Your task to perform on an android device: turn on showing notifications on the lock screen Image 0: 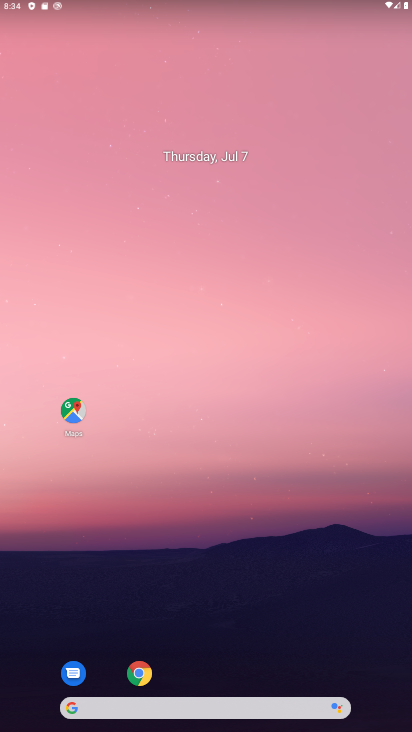
Step 0: drag from (278, 657) to (262, 198)
Your task to perform on an android device: turn on showing notifications on the lock screen Image 1: 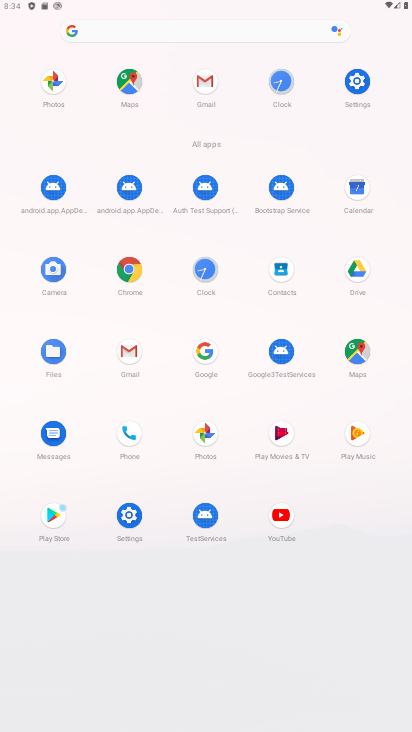
Step 1: click (359, 82)
Your task to perform on an android device: turn on showing notifications on the lock screen Image 2: 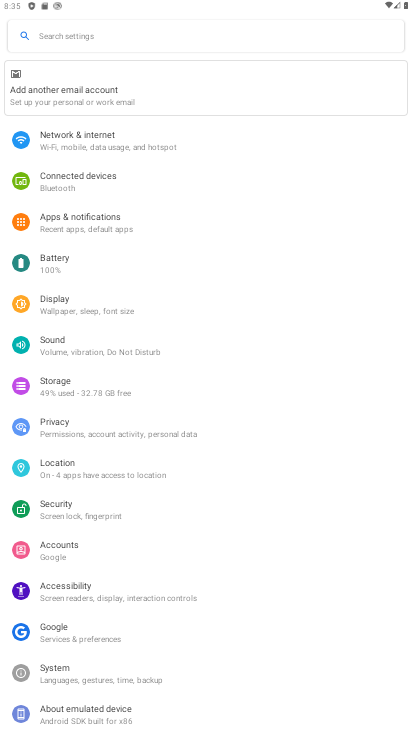
Step 2: click (96, 218)
Your task to perform on an android device: turn on showing notifications on the lock screen Image 3: 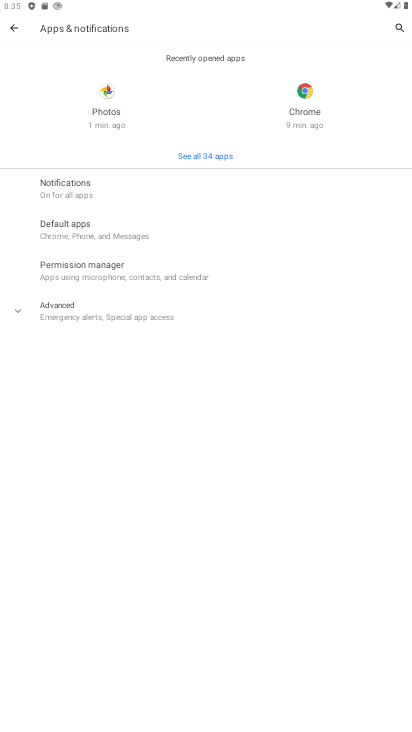
Step 3: click (54, 179)
Your task to perform on an android device: turn on showing notifications on the lock screen Image 4: 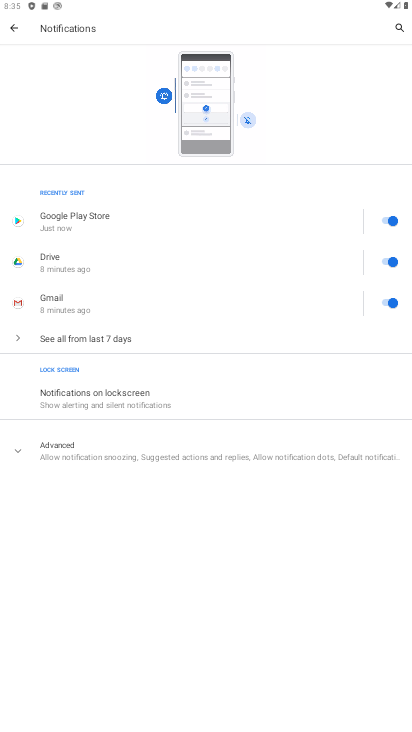
Step 4: click (165, 394)
Your task to perform on an android device: turn on showing notifications on the lock screen Image 5: 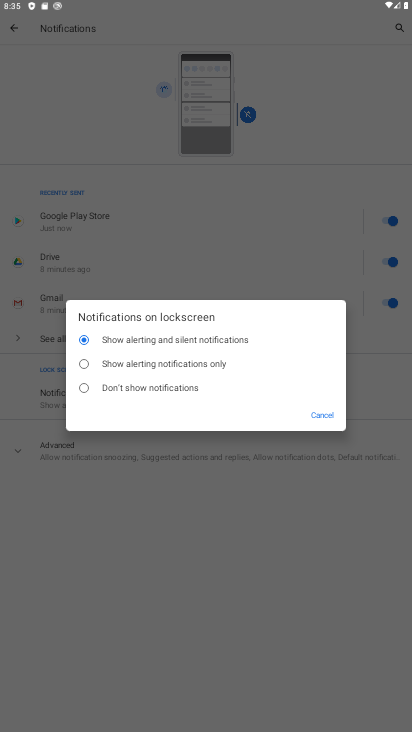
Step 5: task complete